Your task to perform on an android device: What's the weather today? Image 0: 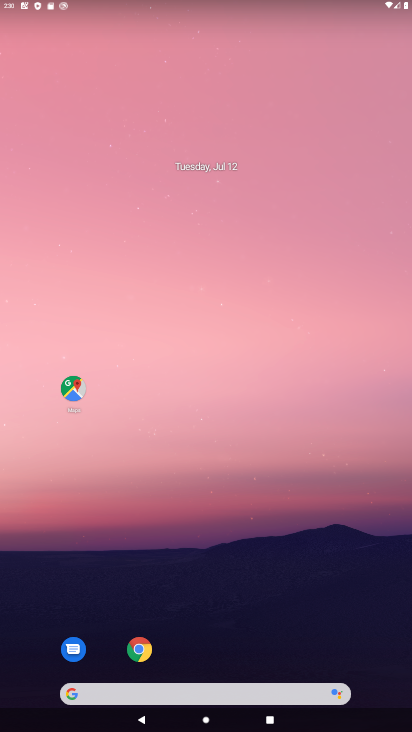
Step 0: click (134, 661)
Your task to perform on an android device: What's the weather today? Image 1: 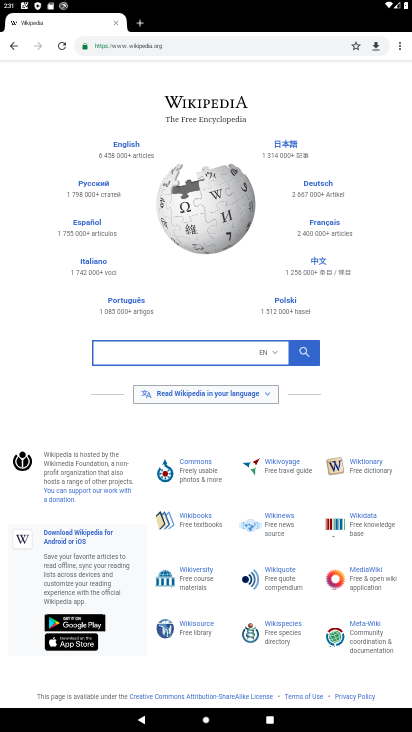
Step 1: click (331, 48)
Your task to perform on an android device: What's the weather today? Image 2: 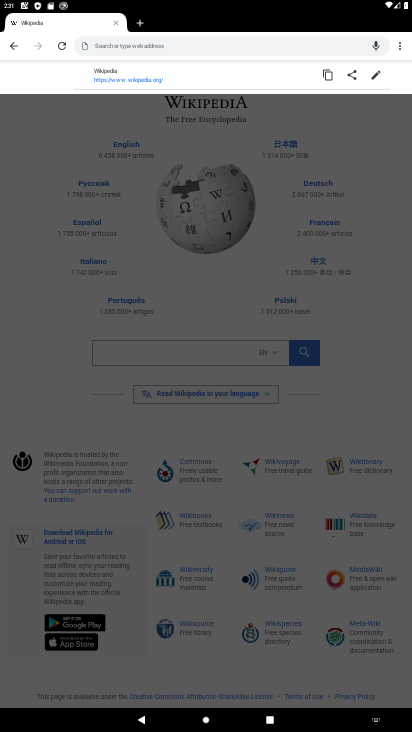
Step 2: type "What's the weather today?"
Your task to perform on an android device: What's the weather today? Image 3: 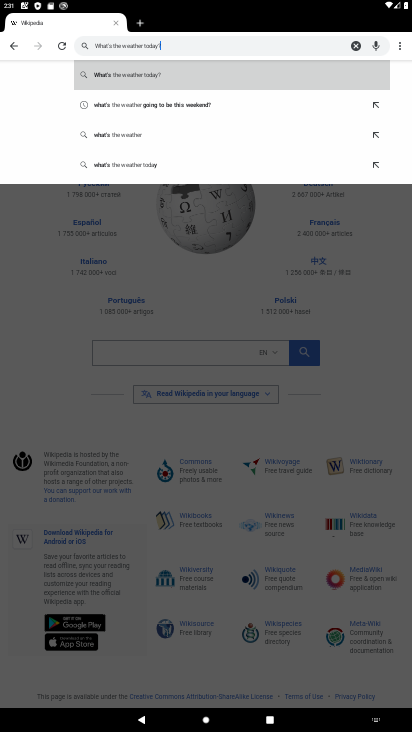
Step 3: type ""
Your task to perform on an android device: What's the weather today? Image 4: 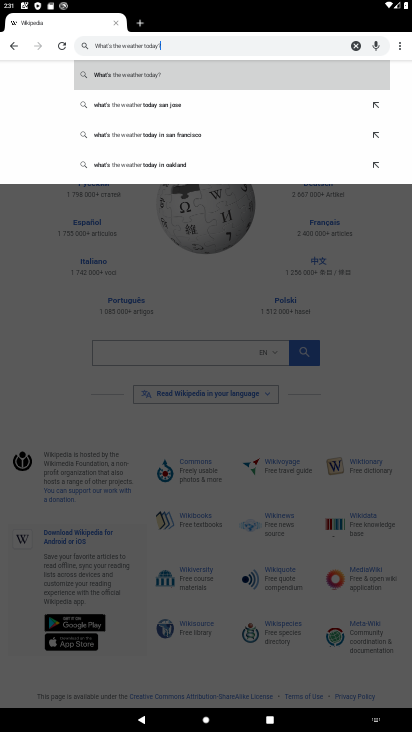
Step 4: click (184, 75)
Your task to perform on an android device: What's the weather today? Image 5: 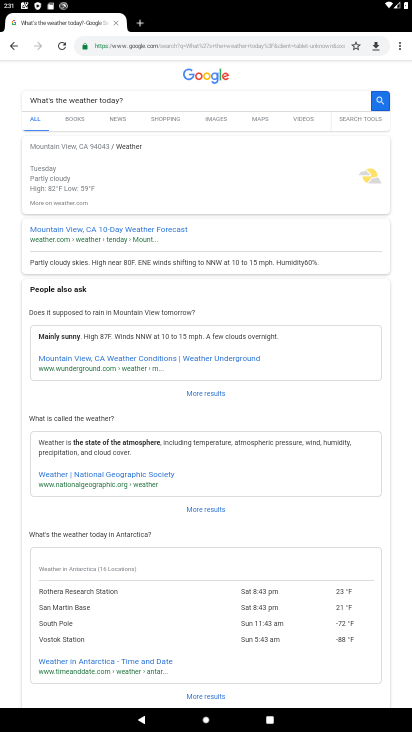
Step 5: task complete